Your task to perform on an android device: make emails show in primary in the gmail app Image 0: 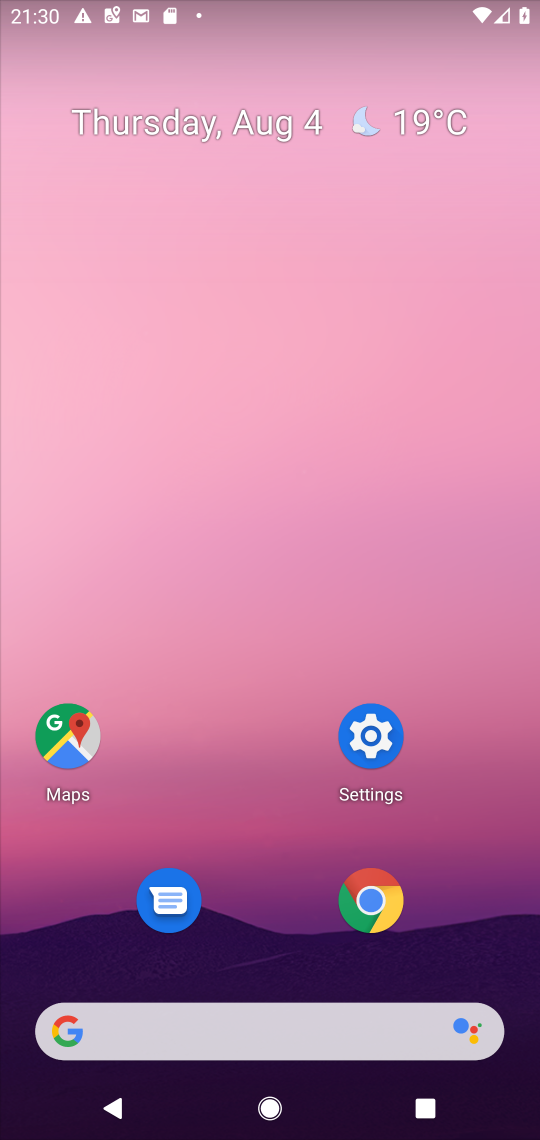
Step 0: press home button
Your task to perform on an android device: make emails show in primary in the gmail app Image 1: 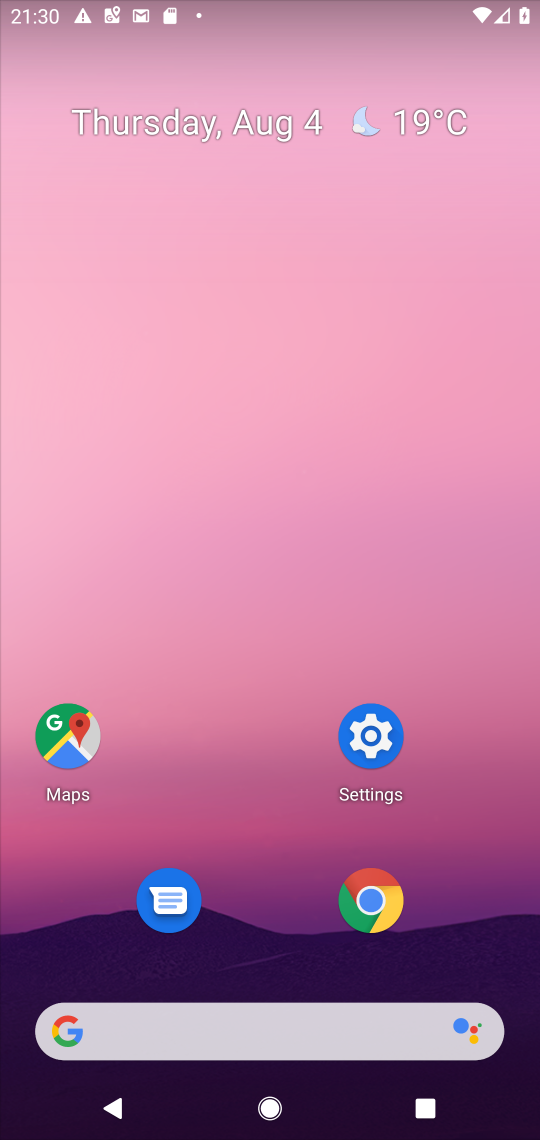
Step 1: drag from (255, 1032) to (474, 146)
Your task to perform on an android device: make emails show in primary in the gmail app Image 2: 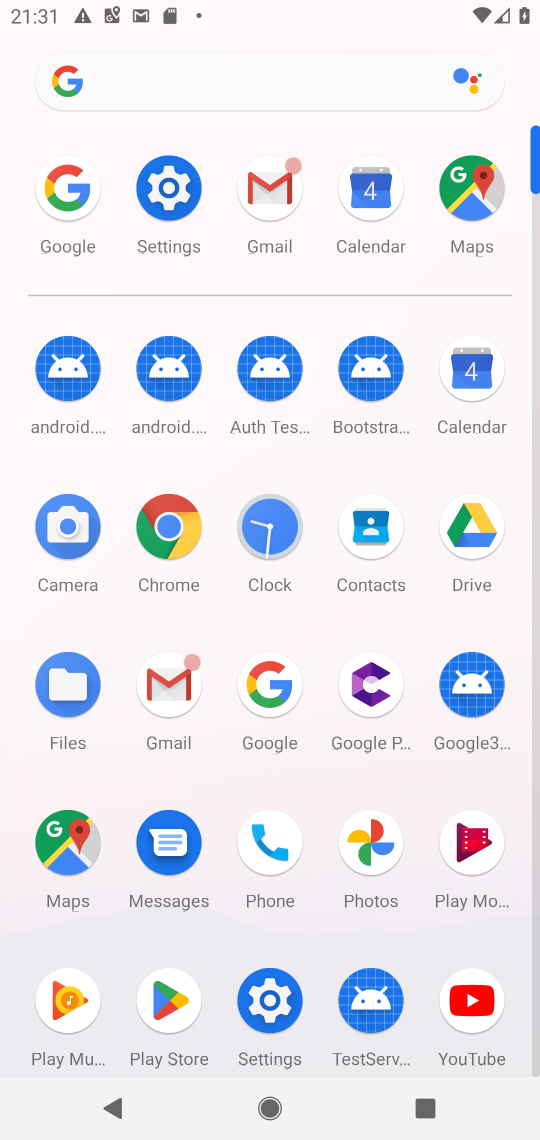
Step 2: click (268, 194)
Your task to perform on an android device: make emails show in primary in the gmail app Image 3: 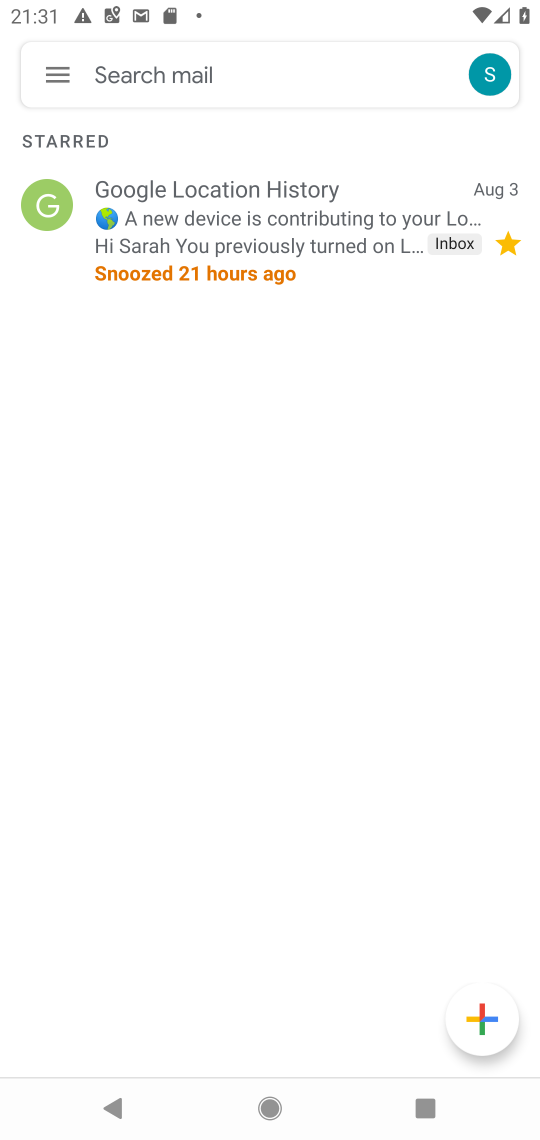
Step 3: click (55, 77)
Your task to perform on an android device: make emails show in primary in the gmail app Image 4: 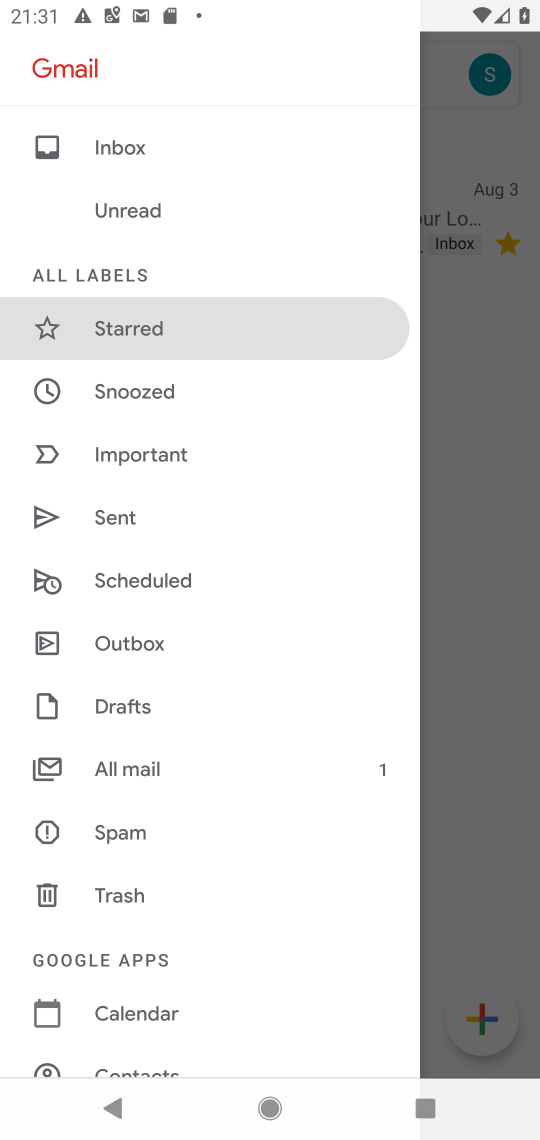
Step 4: drag from (191, 952) to (363, 106)
Your task to perform on an android device: make emails show in primary in the gmail app Image 5: 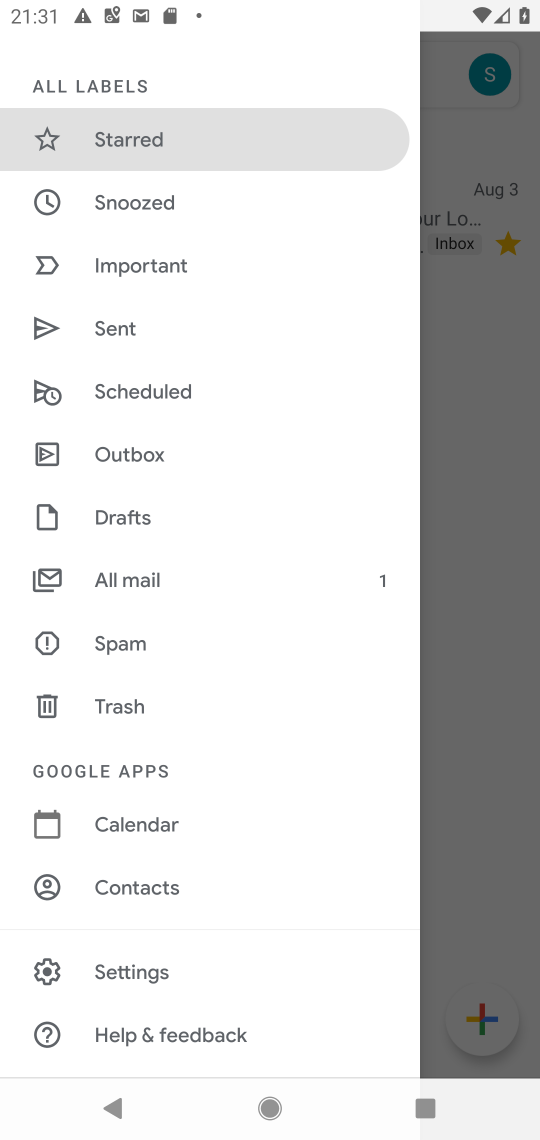
Step 5: click (152, 975)
Your task to perform on an android device: make emails show in primary in the gmail app Image 6: 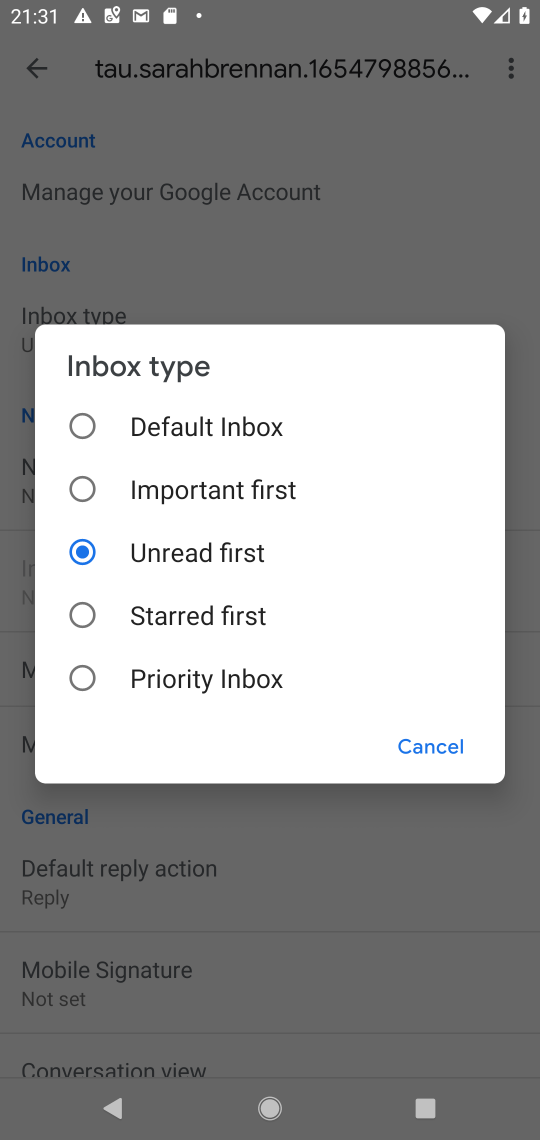
Step 6: click (438, 751)
Your task to perform on an android device: make emails show in primary in the gmail app Image 7: 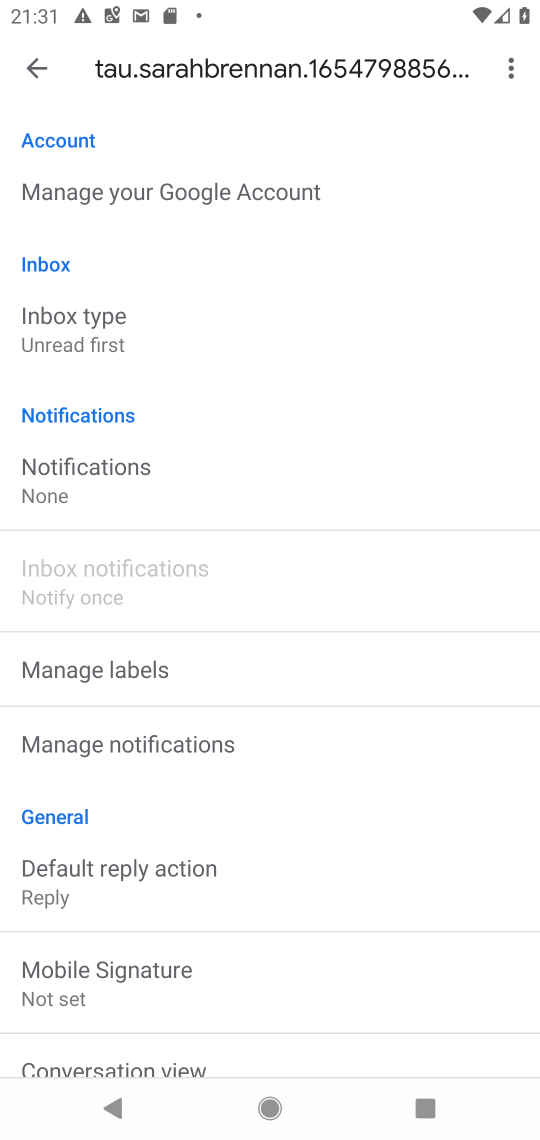
Step 7: task complete